Your task to perform on an android device: Search for razer blade on target, select the first entry, and add it to the cart. Image 0: 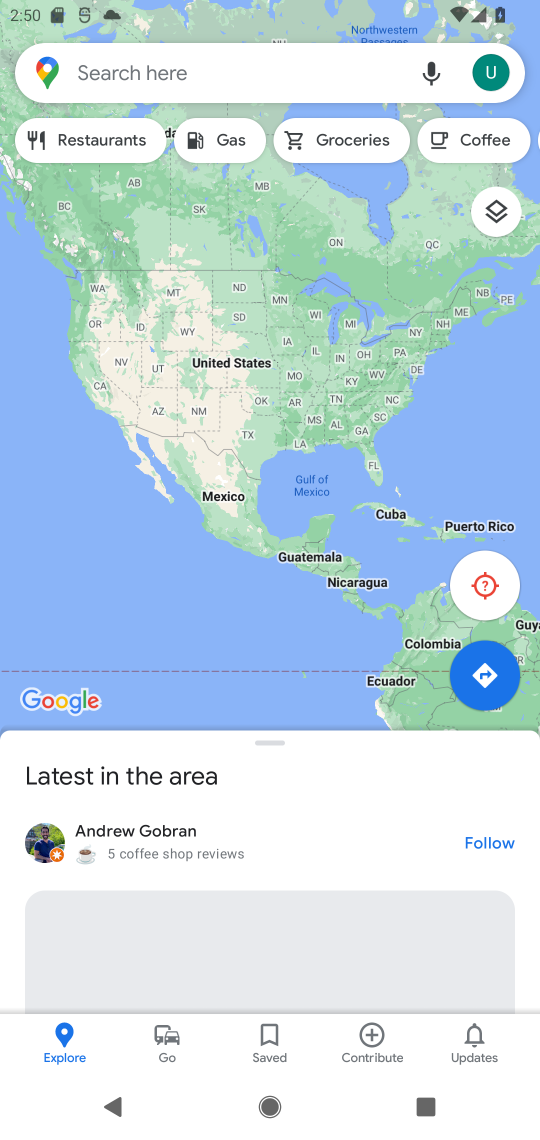
Step 0: press home button
Your task to perform on an android device: Search for razer blade on target, select the first entry, and add it to the cart. Image 1: 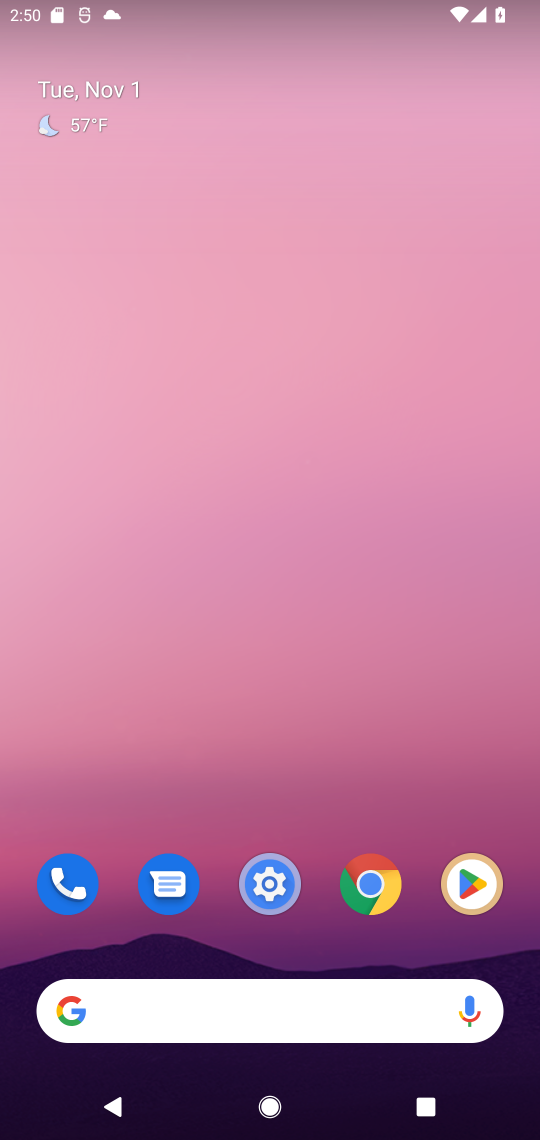
Step 1: click (111, 1003)
Your task to perform on an android device: Search for razer blade on target, select the first entry, and add it to the cart. Image 2: 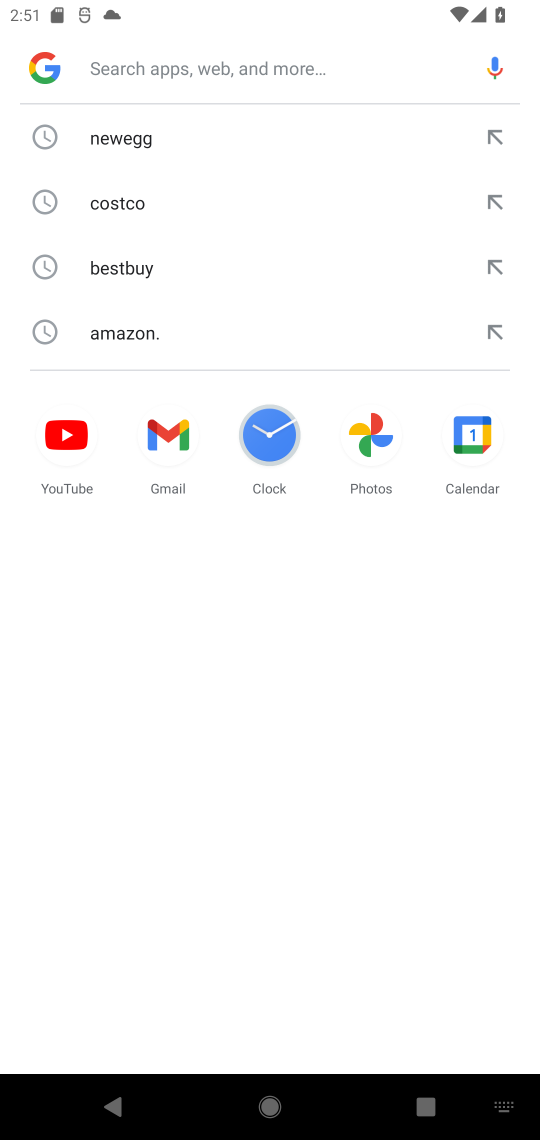
Step 2: type "target, "
Your task to perform on an android device: Search for razer blade on target, select the first entry, and add it to the cart. Image 3: 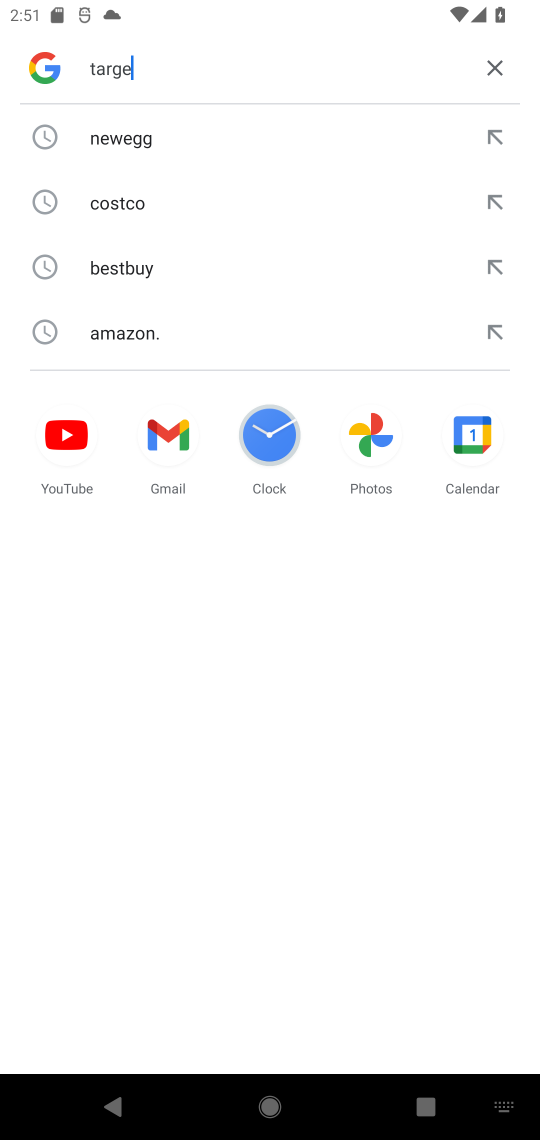
Step 3: press enter
Your task to perform on an android device: Search for razer blade on target, select the first entry, and add it to the cart. Image 4: 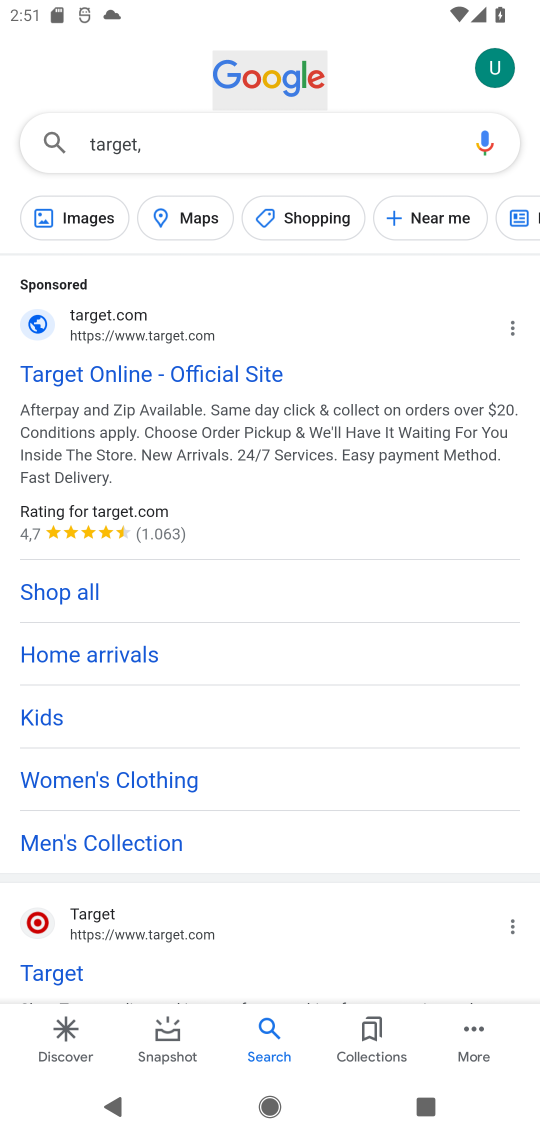
Step 4: click (149, 381)
Your task to perform on an android device: Search for razer blade on target, select the first entry, and add it to the cart. Image 5: 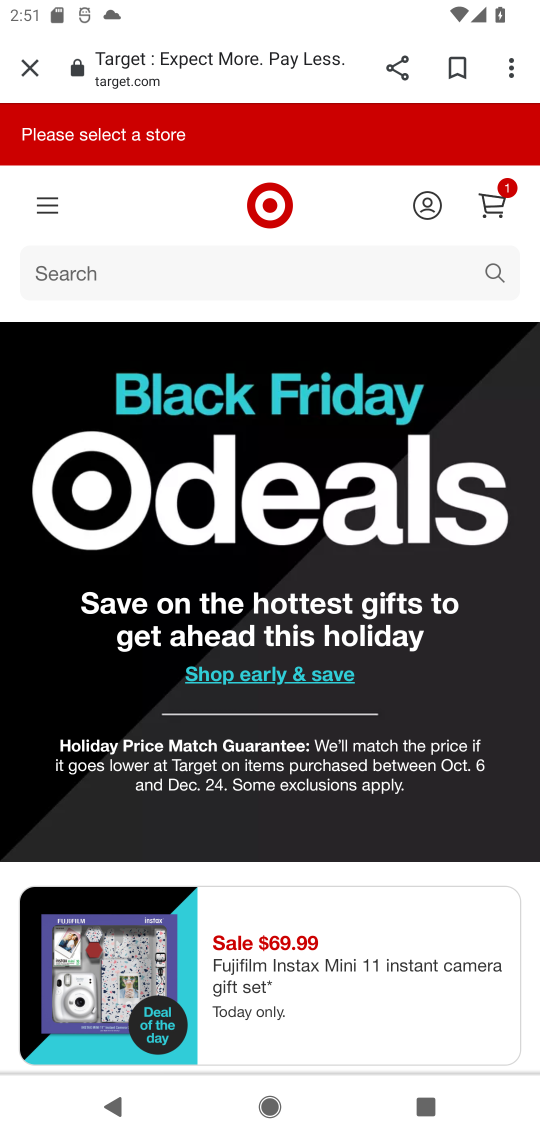
Step 5: click (90, 276)
Your task to perform on an android device: Search for razer blade on target, select the first entry, and add it to the cart. Image 6: 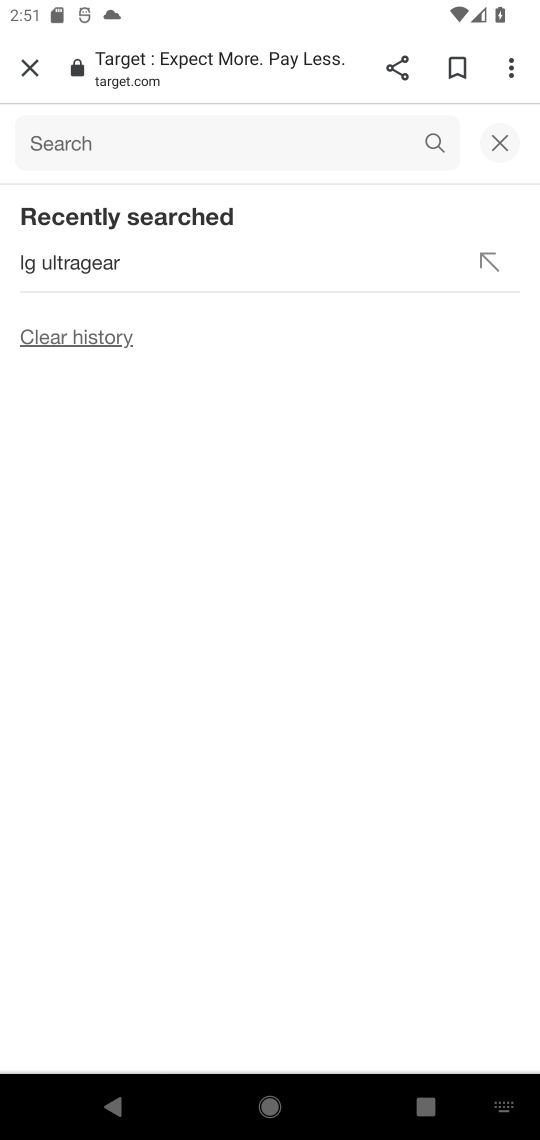
Step 6: type "razer blade"
Your task to perform on an android device: Search for razer blade on target, select the first entry, and add it to the cart. Image 7: 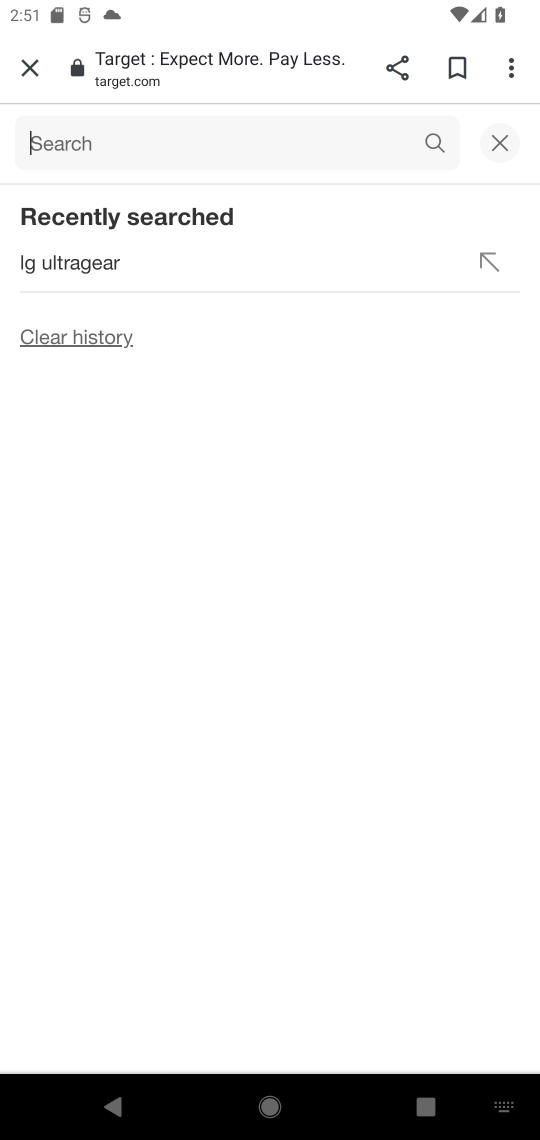
Step 7: press enter
Your task to perform on an android device: Search for razer blade on target, select the first entry, and add it to the cart. Image 8: 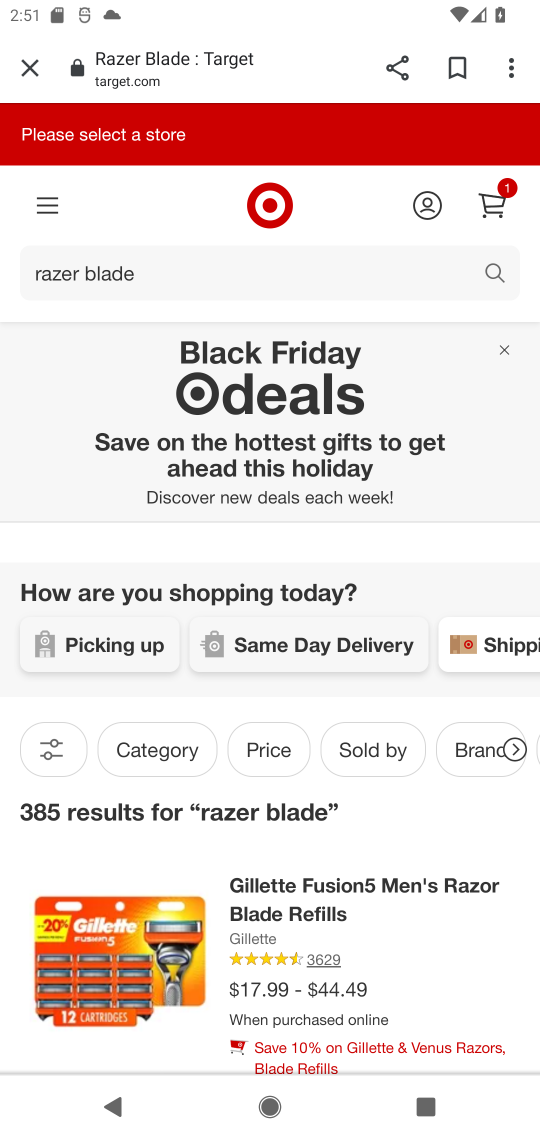
Step 8: drag from (389, 961) to (414, 590)
Your task to perform on an android device: Search for razer blade on target, select the first entry, and add it to the cart. Image 9: 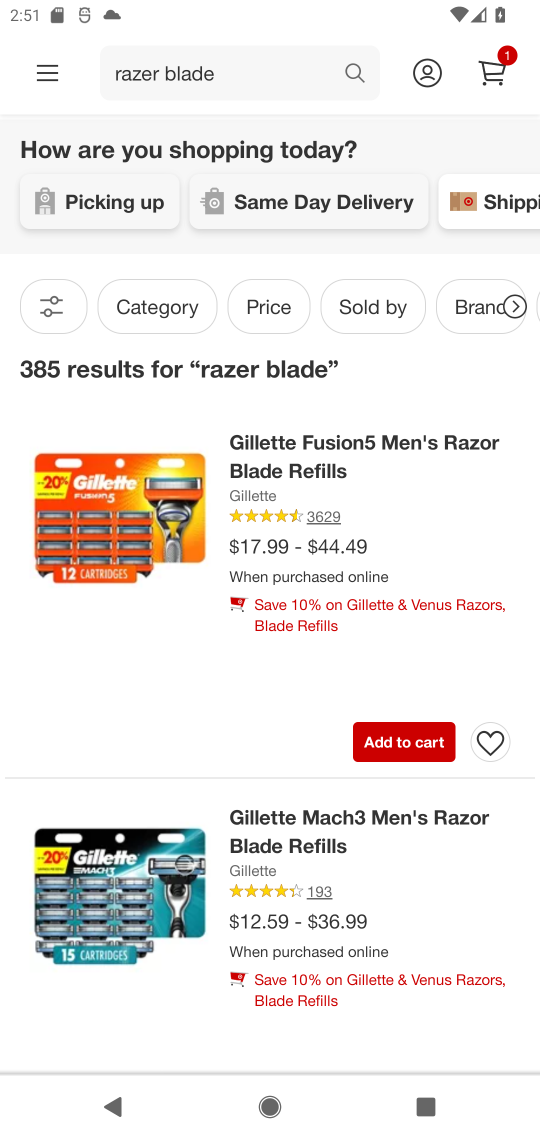
Step 9: click (434, 748)
Your task to perform on an android device: Search for razer blade on target, select the first entry, and add it to the cart. Image 10: 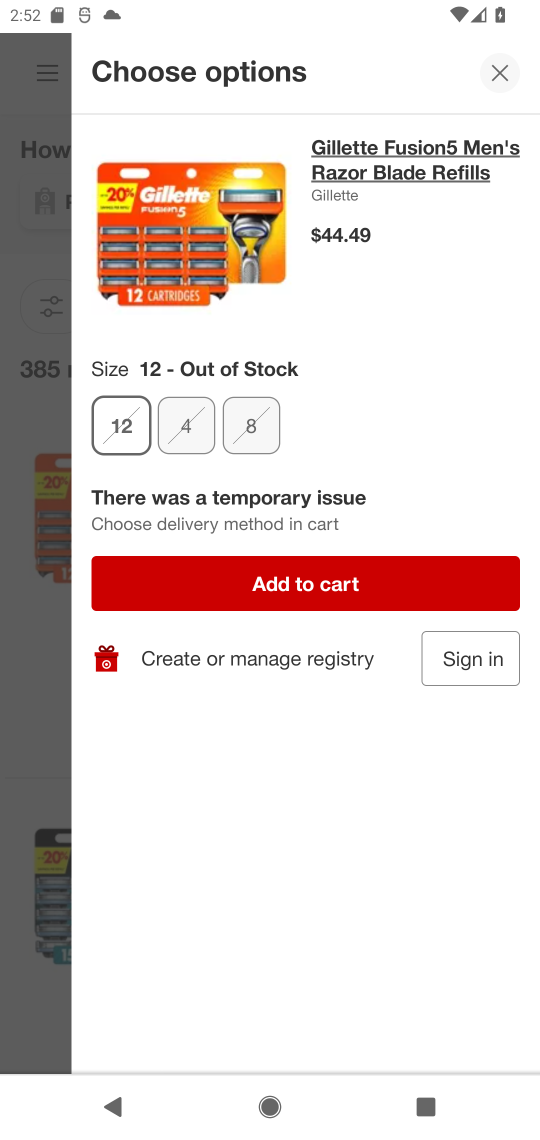
Step 10: click (350, 588)
Your task to perform on an android device: Search for razer blade on target, select the first entry, and add it to the cart. Image 11: 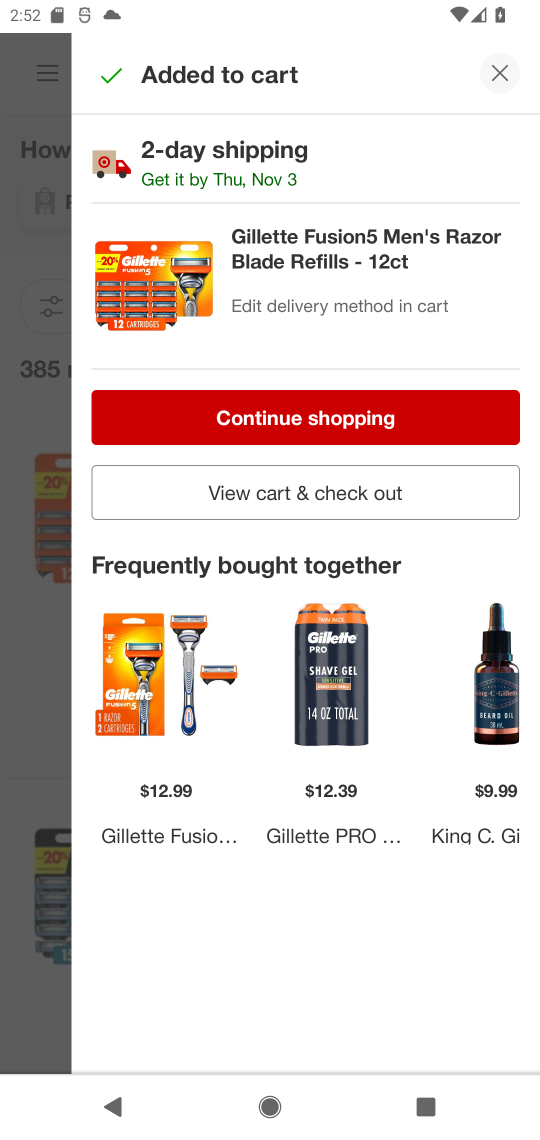
Step 11: task complete